Your task to perform on an android device: Search for pizza restaurants on Maps Image 0: 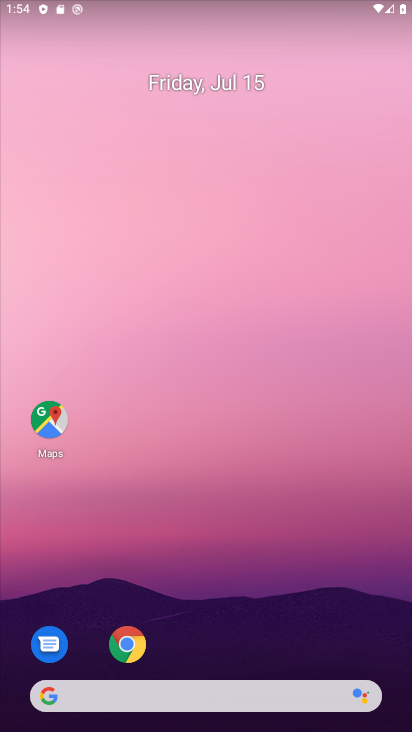
Step 0: click (56, 430)
Your task to perform on an android device: Search for pizza restaurants on Maps Image 1: 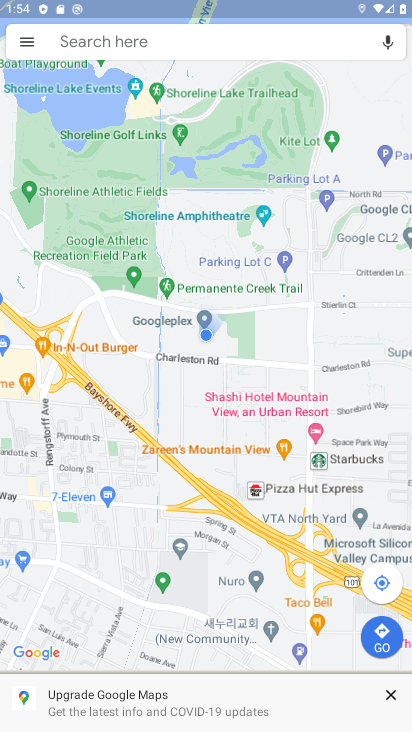
Step 1: click (85, 49)
Your task to perform on an android device: Search for pizza restaurants on Maps Image 2: 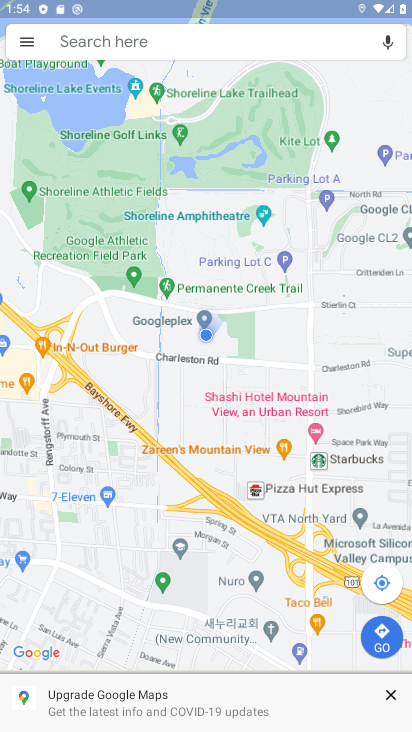
Step 2: click (85, 38)
Your task to perform on an android device: Search for pizza restaurants on Maps Image 3: 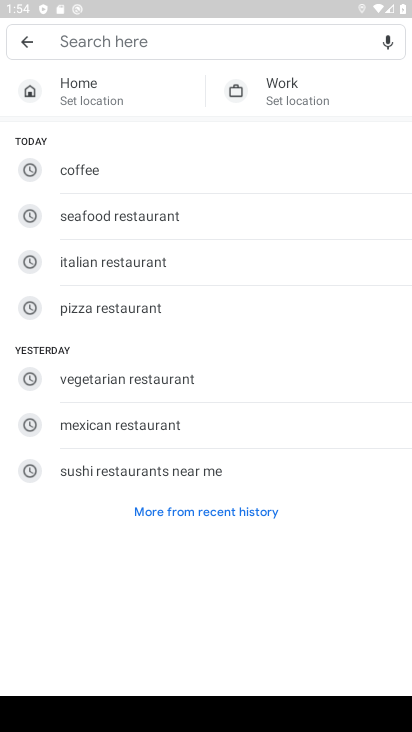
Step 3: click (119, 320)
Your task to perform on an android device: Search for pizza restaurants on Maps Image 4: 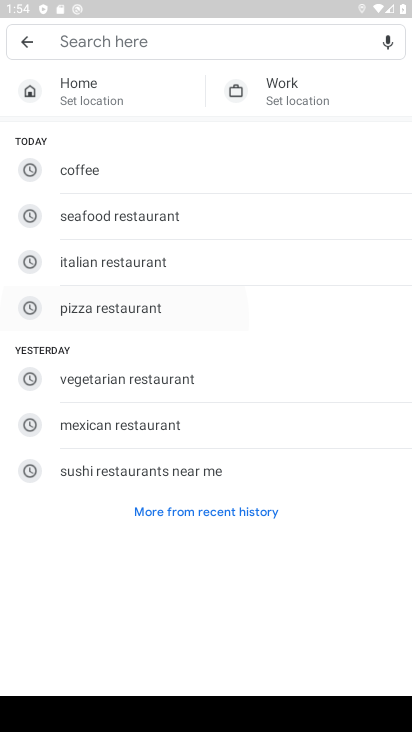
Step 4: click (107, 305)
Your task to perform on an android device: Search for pizza restaurants on Maps Image 5: 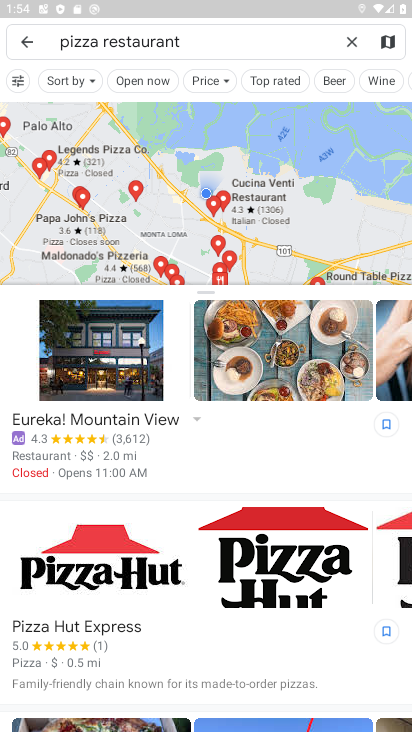
Step 5: task complete